Your task to perform on an android device: turn on notifications settings in the gmail app Image 0: 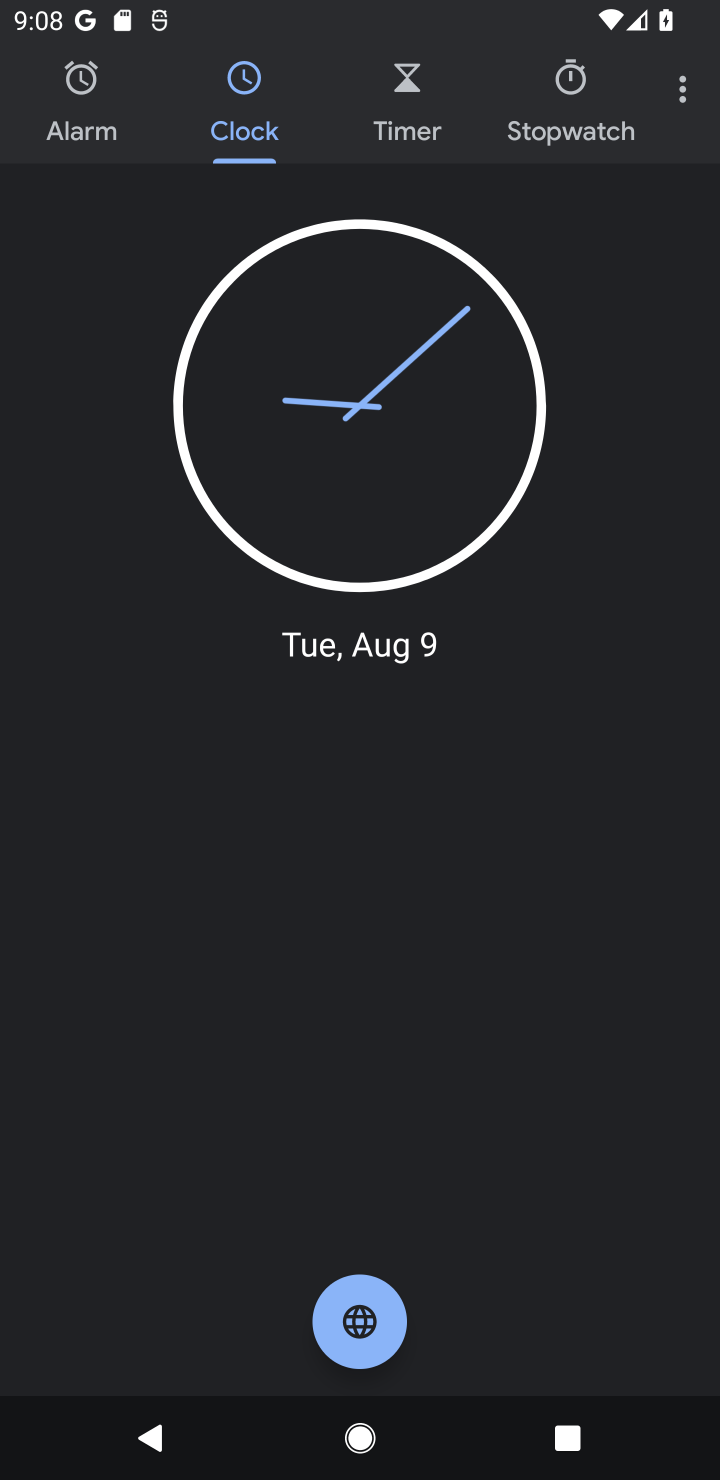
Step 0: press home button
Your task to perform on an android device: turn on notifications settings in the gmail app Image 1: 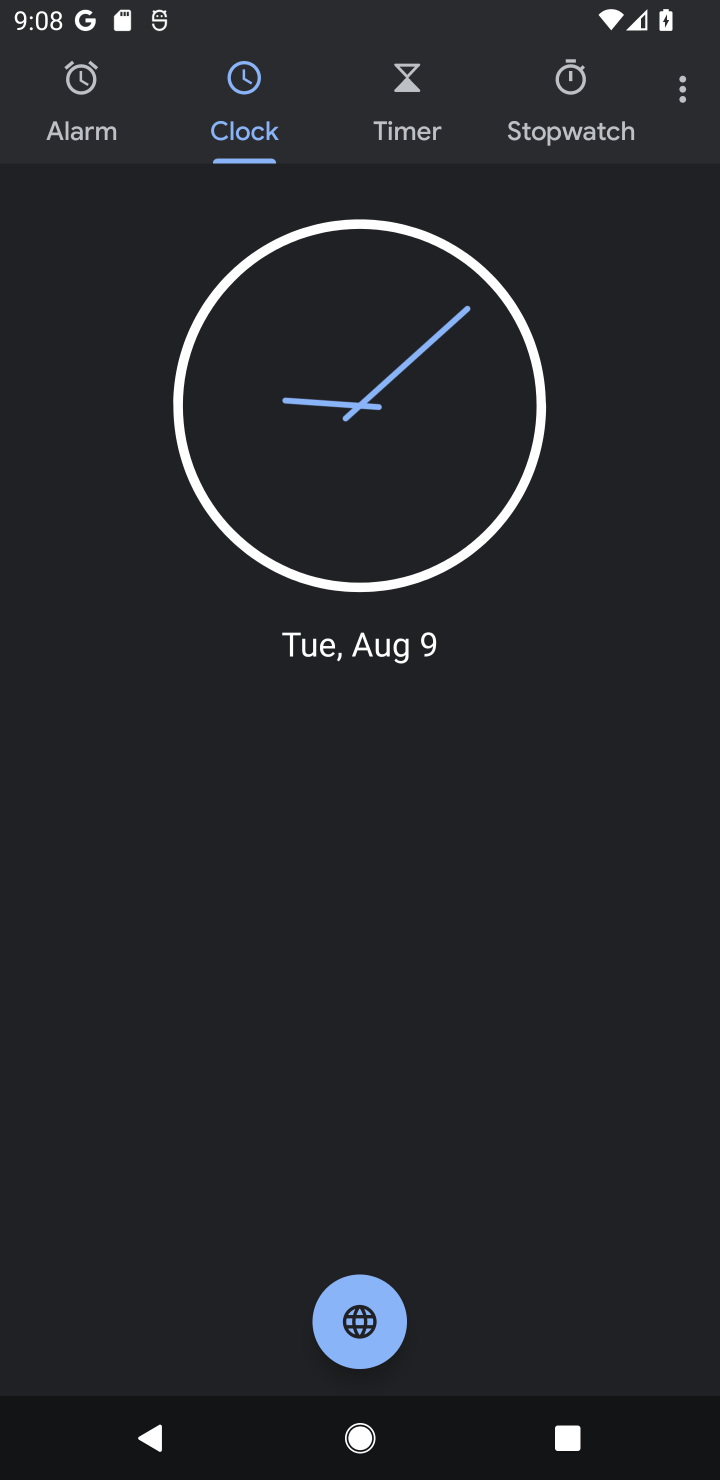
Step 1: press home button
Your task to perform on an android device: turn on notifications settings in the gmail app Image 2: 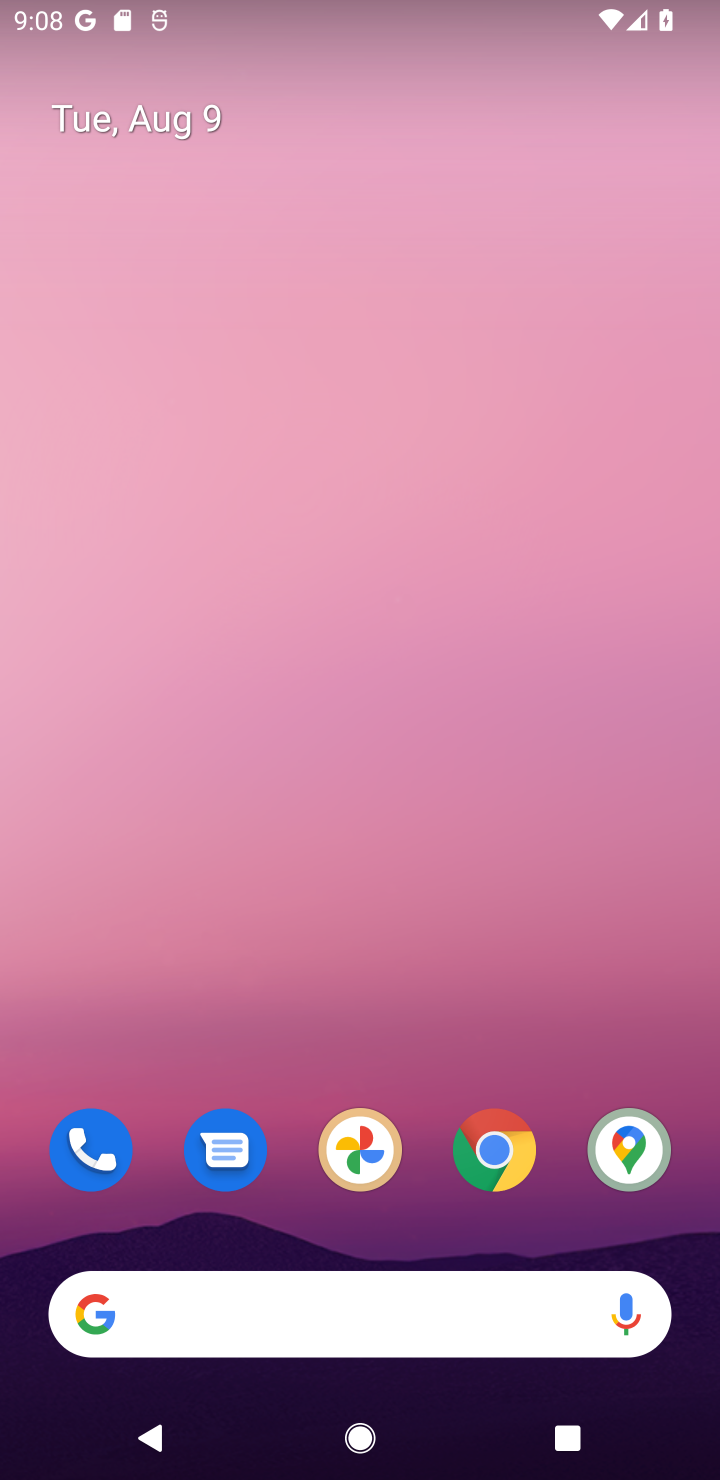
Step 2: drag from (349, 1304) to (543, 601)
Your task to perform on an android device: turn on notifications settings in the gmail app Image 3: 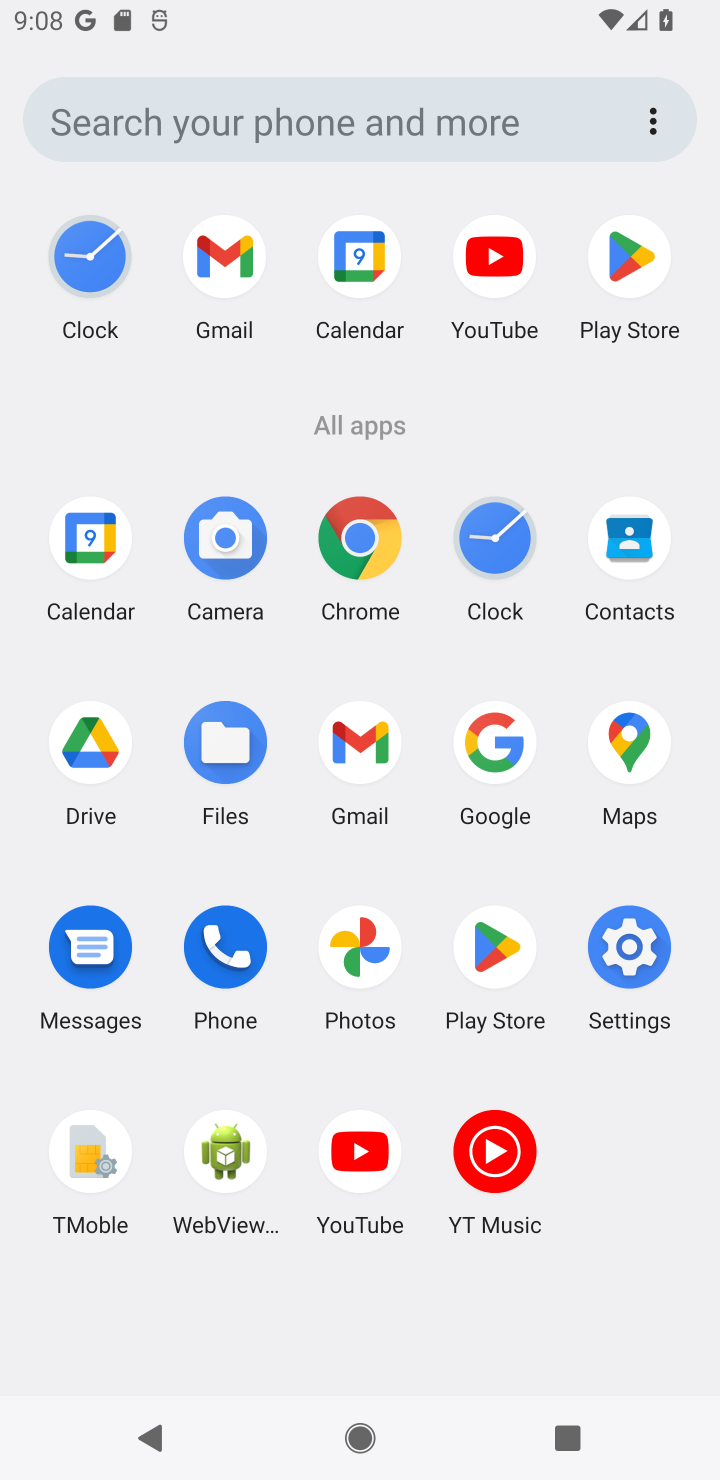
Step 3: click (336, 755)
Your task to perform on an android device: turn on notifications settings in the gmail app Image 4: 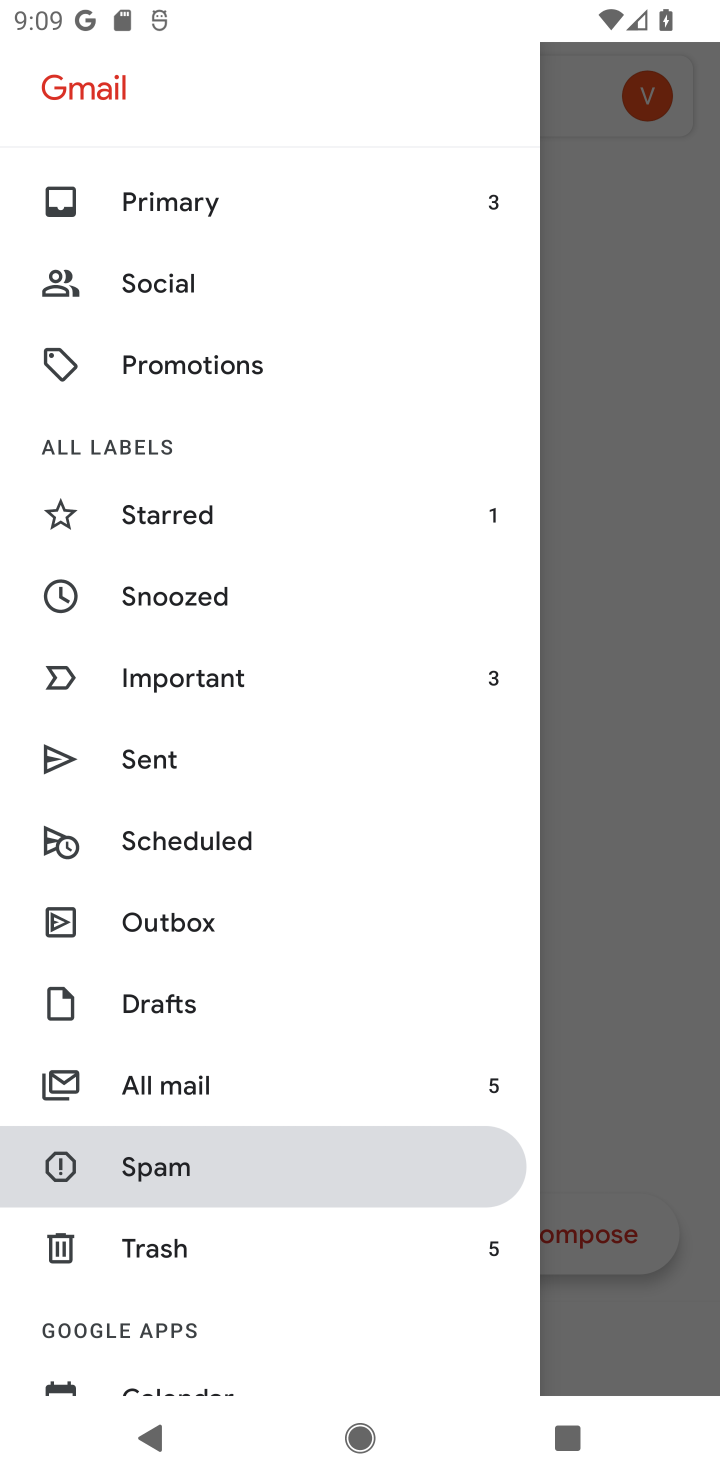
Step 4: drag from (270, 1304) to (438, 833)
Your task to perform on an android device: turn on notifications settings in the gmail app Image 5: 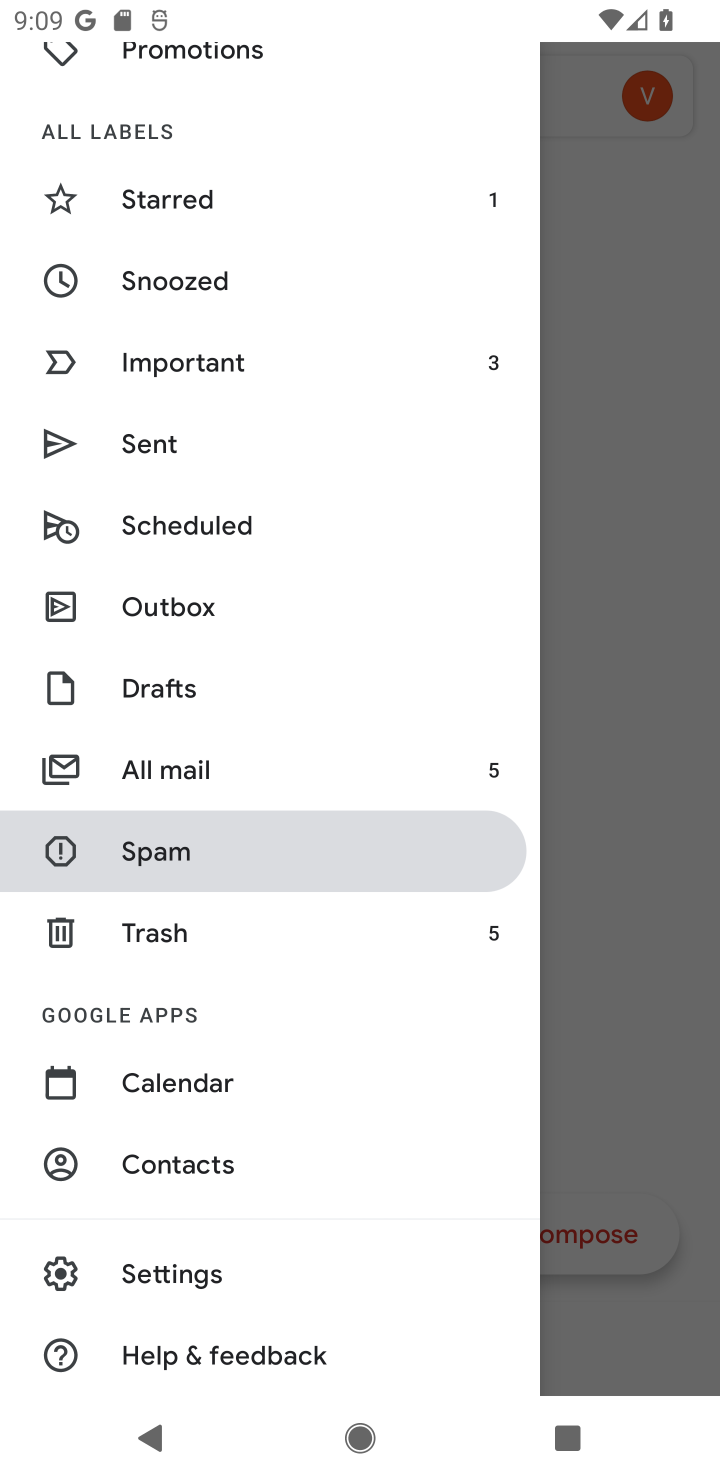
Step 5: click (206, 1281)
Your task to perform on an android device: turn on notifications settings in the gmail app Image 6: 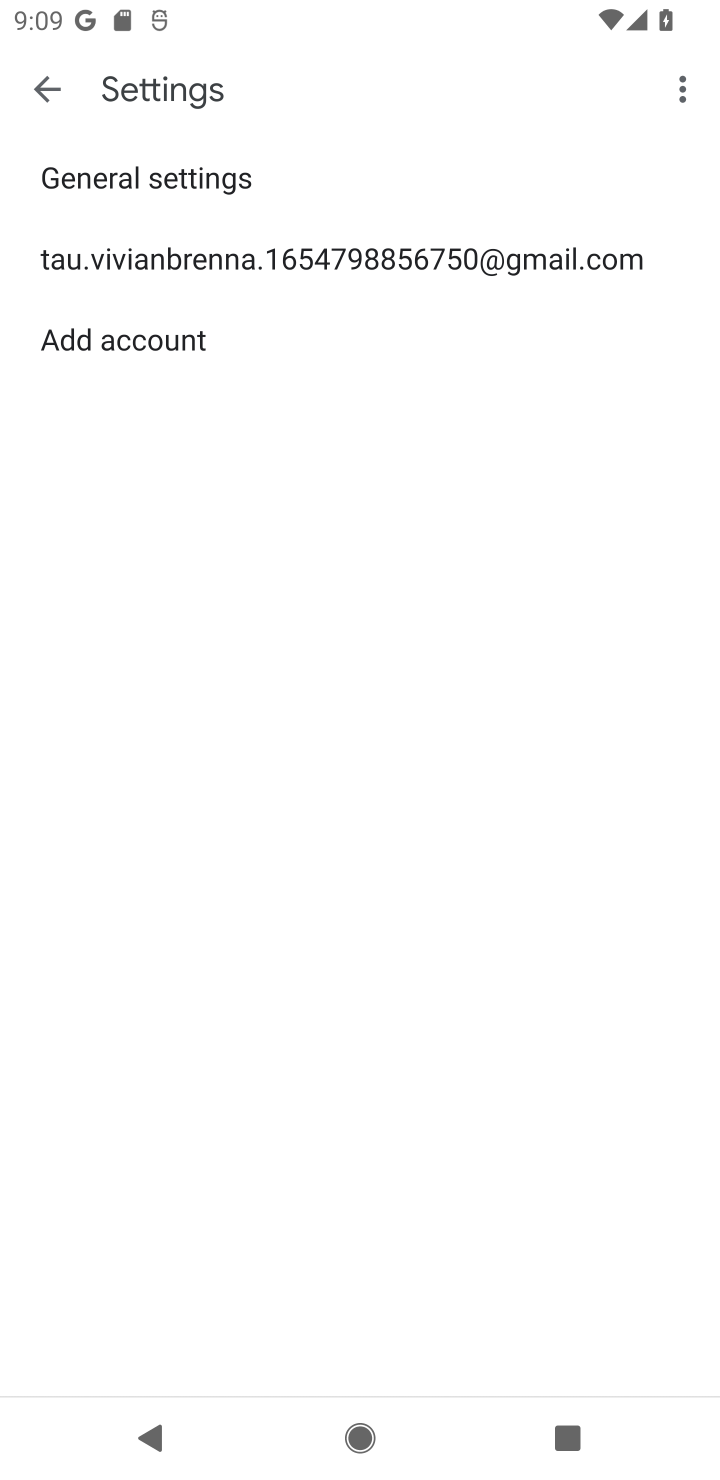
Step 6: click (172, 178)
Your task to perform on an android device: turn on notifications settings in the gmail app Image 7: 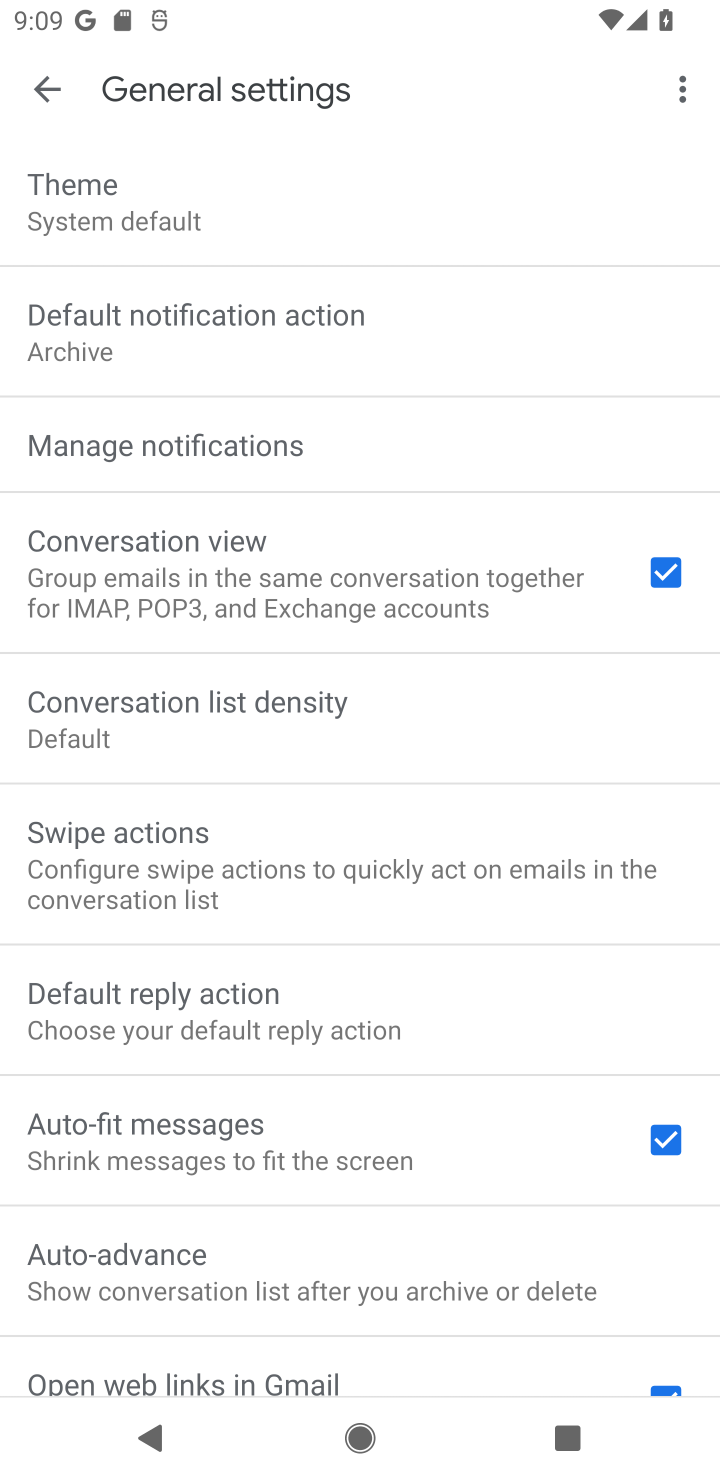
Step 7: click (141, 444)
Your task to perform on an android device: turn on notifications settings in the gmail app Image 8: 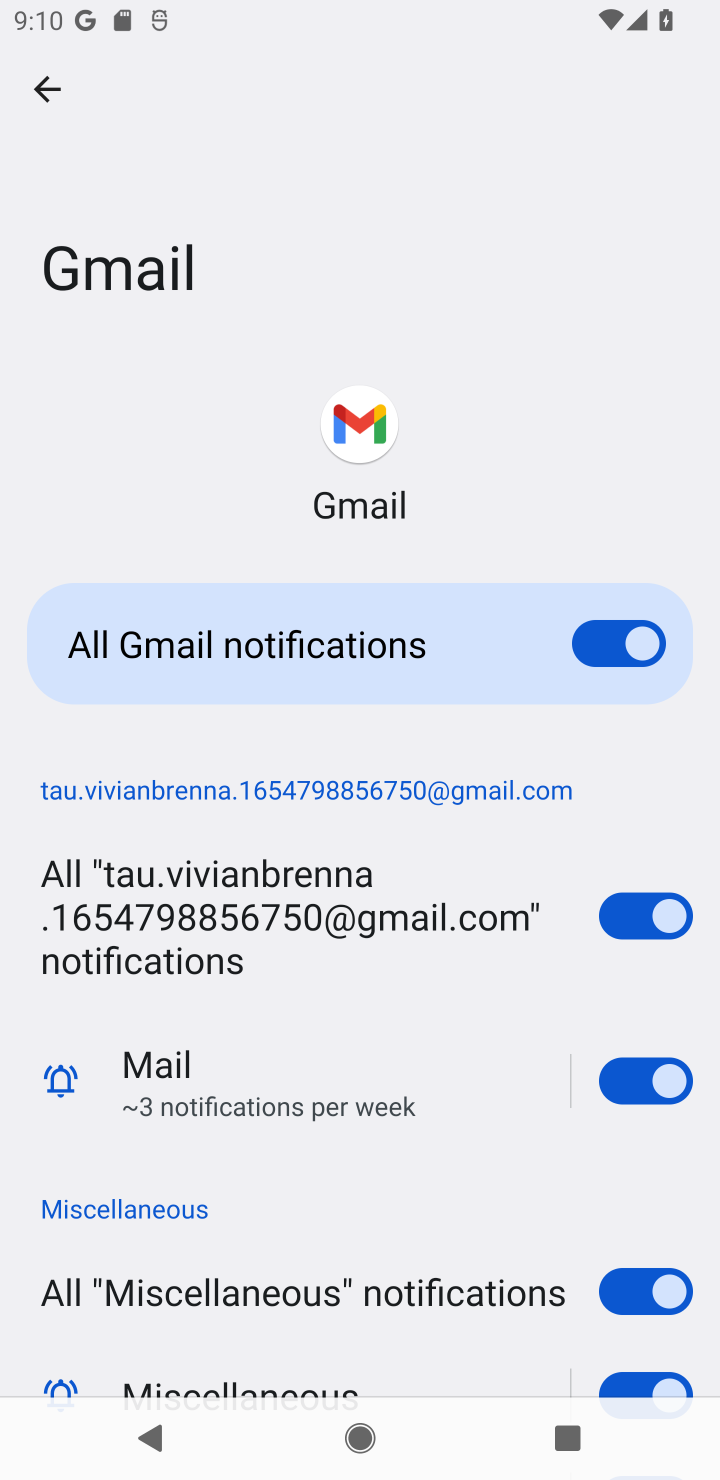
Step 8: task complete